Your task to perform on an android device: Go to privacy settings Image 0: 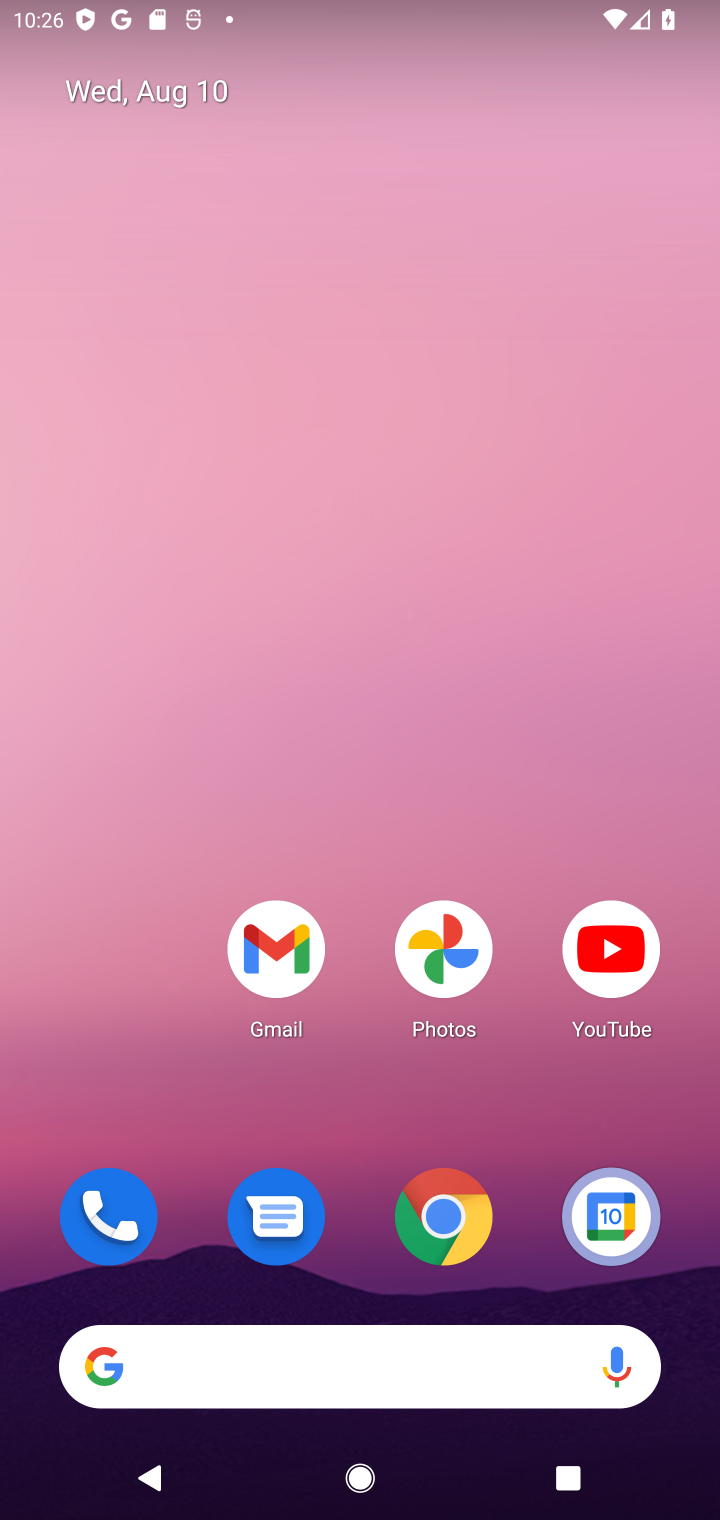
Step 0: drag from (36, 1294) to (462, 377)
Your task to perform on an android device: Go to privacy settings Image 1: 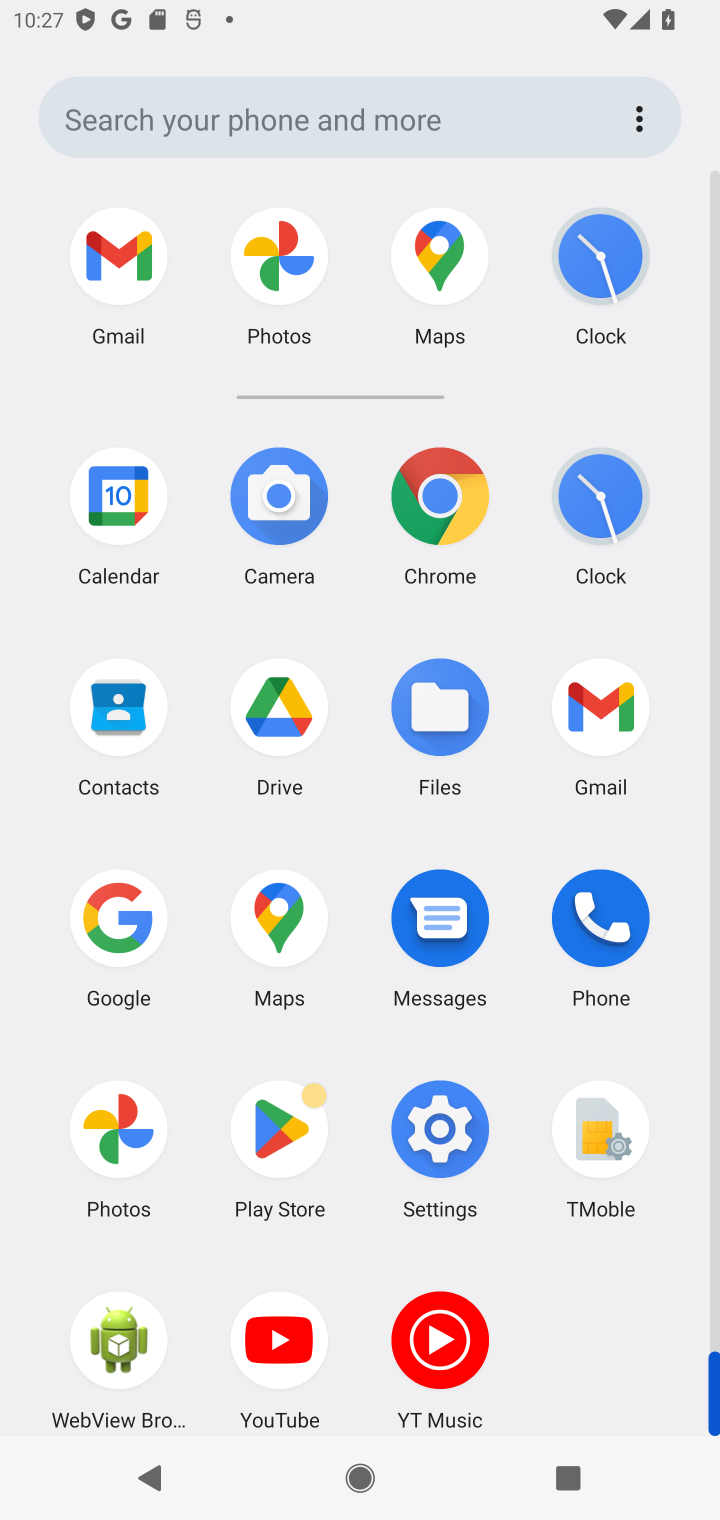
Step 1: click (421, 1154)
Your task to perform on an android device: Go to privacy settings Image 2: 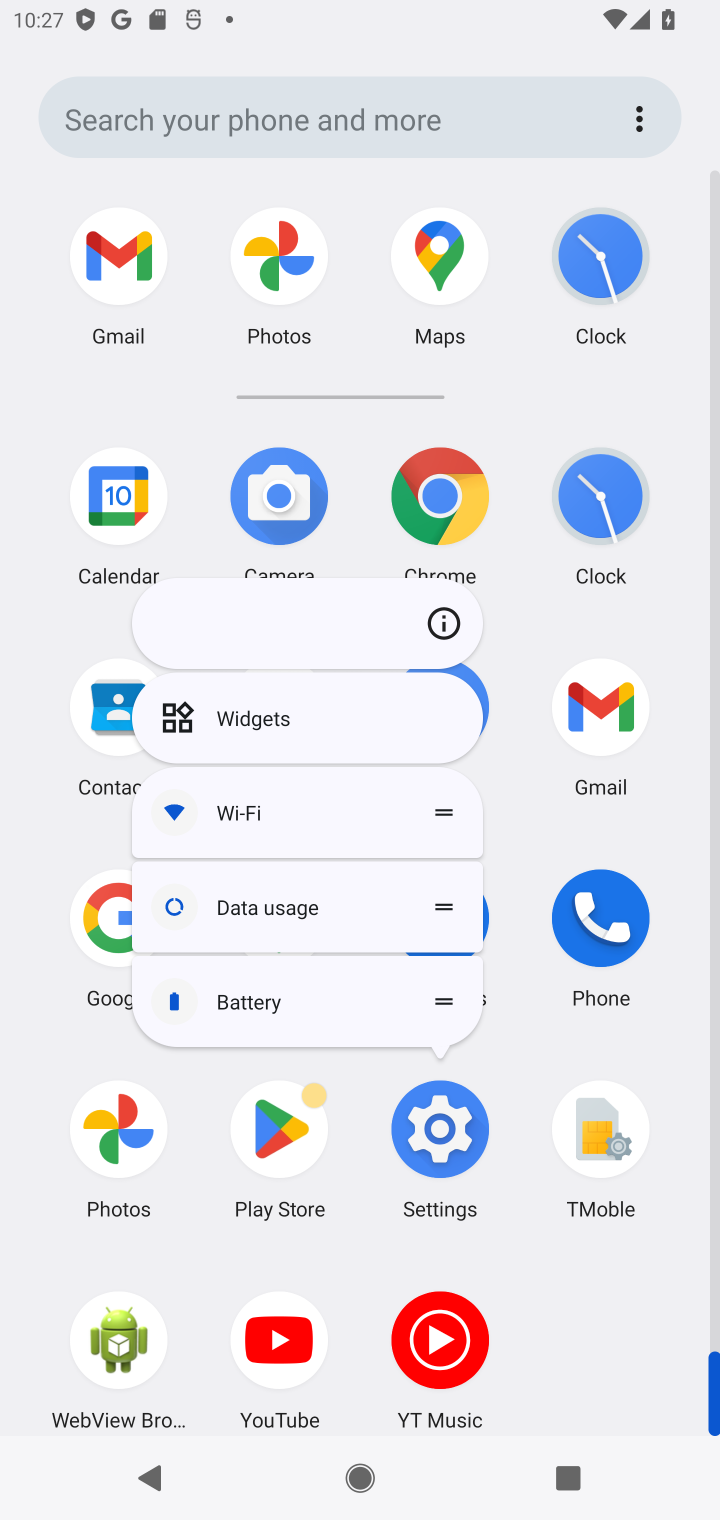
Step 2: click (447, 1132)
Your task to perform on an android device: Go to privacy settings Image 3: 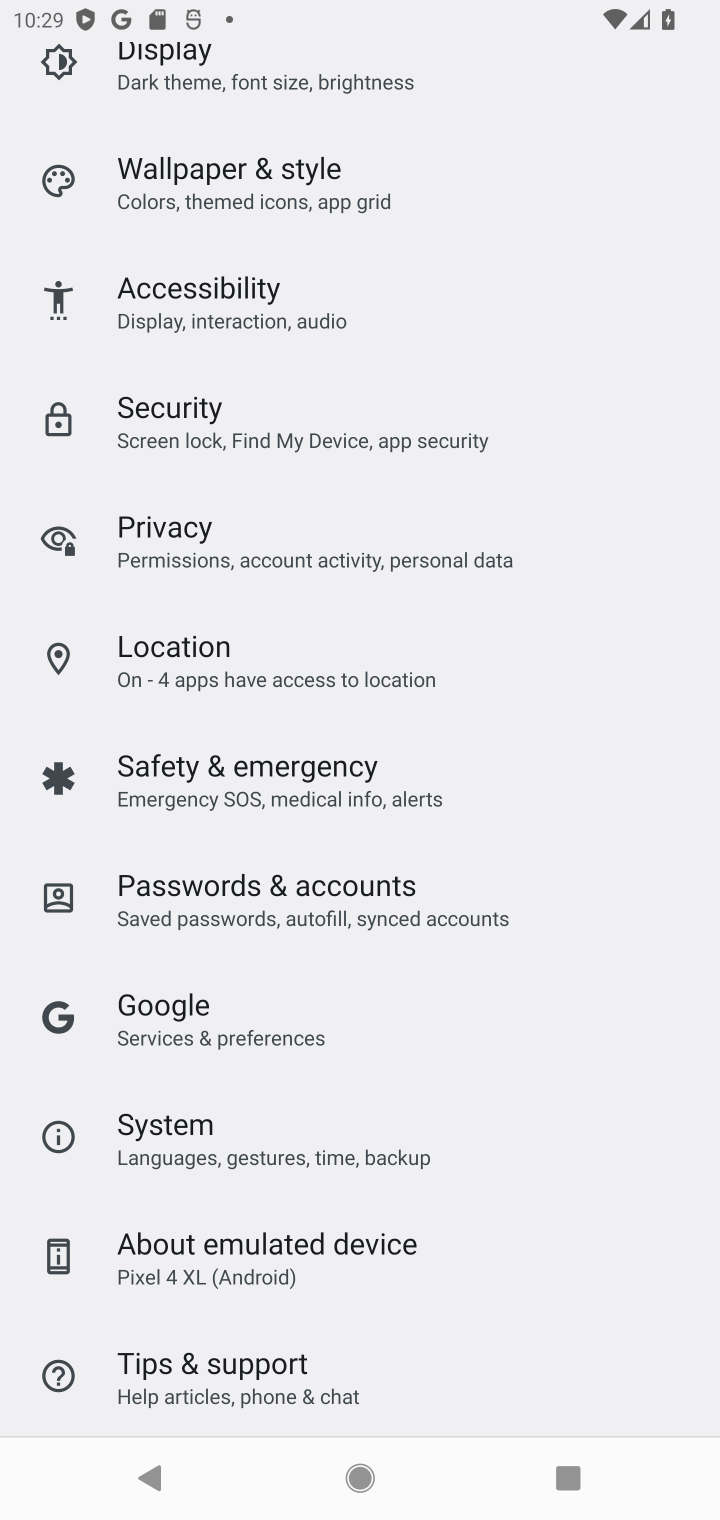
Step 3: click (249, 556)
Your task to perform on an android device: Go to privacy settings Image 4: 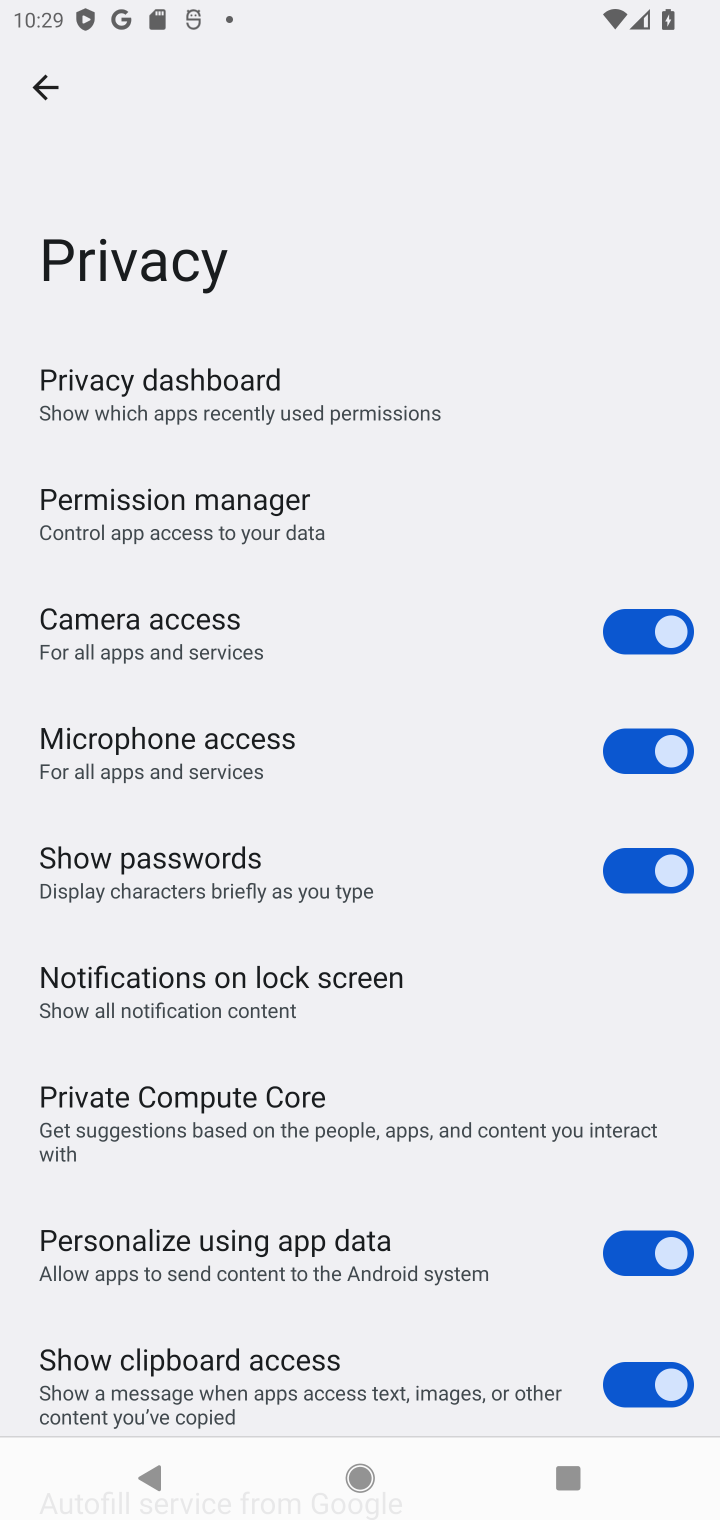
Step 4: task complete